Your task to perform on an android device: Go to sound settings Image 0: 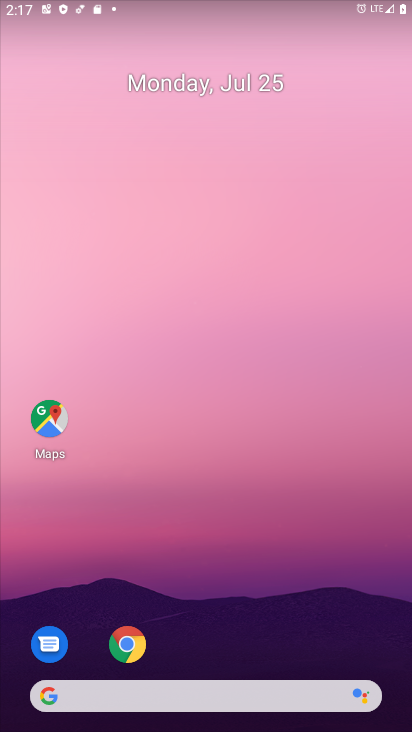
Step 0: drag from (365, 645) to (204, 7)
Your task to perform on an android device: Go to sound settings Image 1: 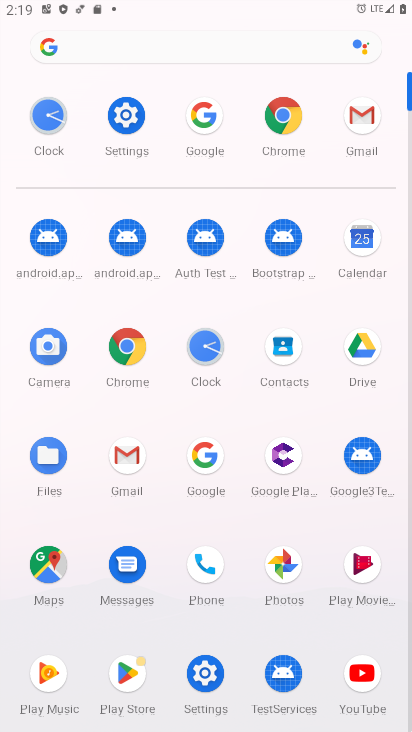
Step 1: click (196, 670)
Your task to perform on an android device: Go to sound settings Image 2: 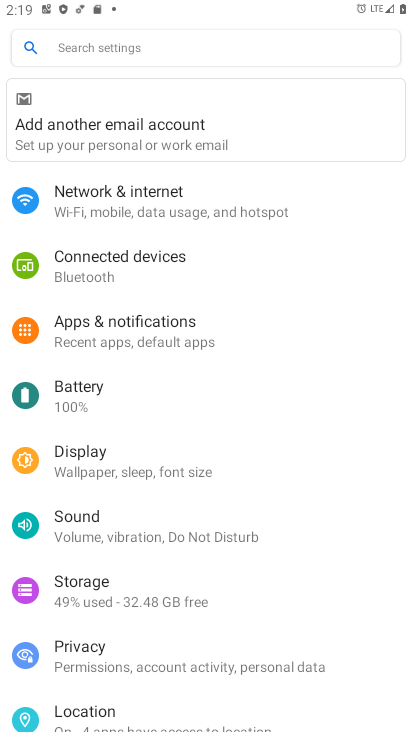
Step 2: click (74, 536)
Your task to perform on an android device: Go to sound settings Image 3: 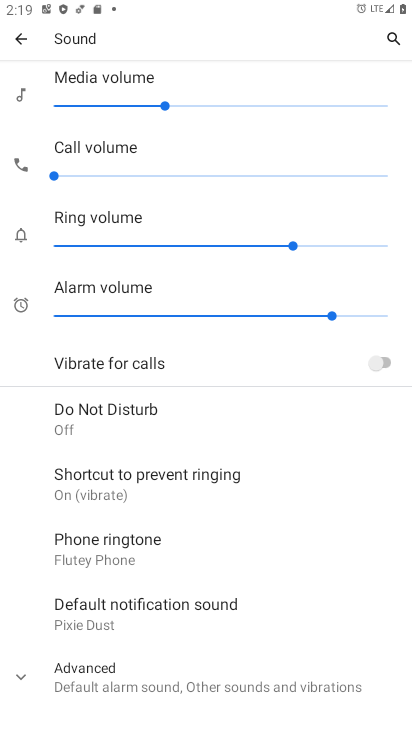
Step 3: task complete